Your task to perform on an android device: refresh tabs in the chrome app Image 0: 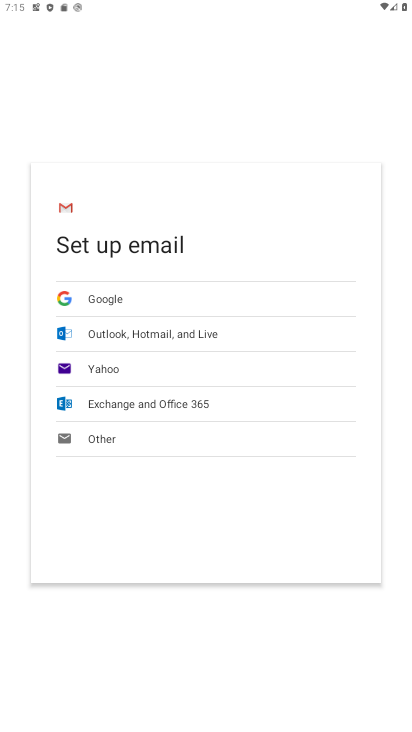
Step 0: press home button
Your task to perform on an android device: refresh tabs in the chrome app Image 1: 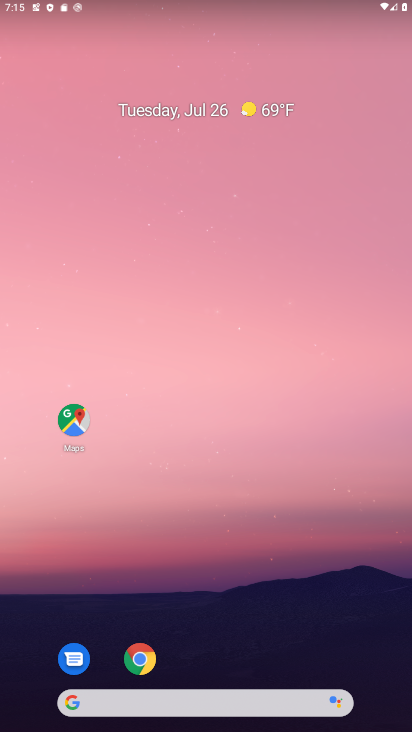
Step 1: click (157, 652)
Your task to perform on an android device: refresh tabs in the chrome app Image 2: 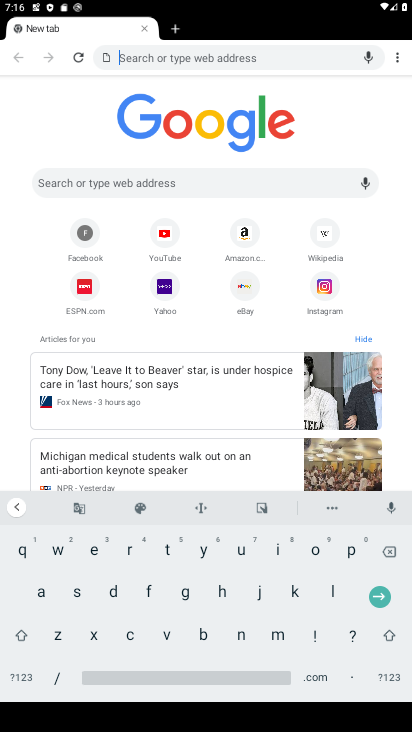
Step 2: click (75, 56)
Your task to perform on an android device: refresh tabs in the chrome app Image 3: 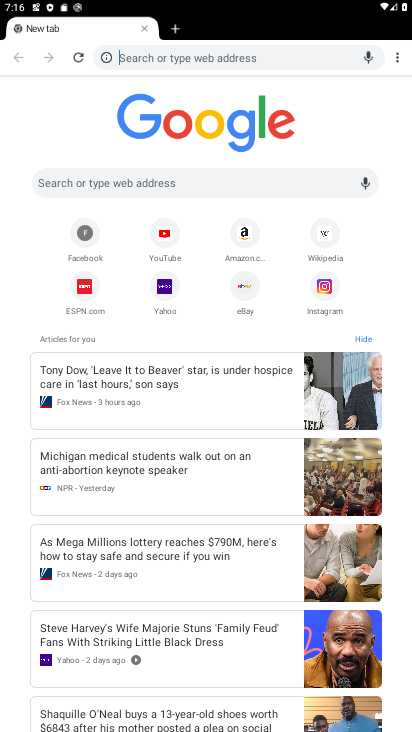
Step 3: task complete